Your task to perform on an android device: change text size in settings app Image 0: 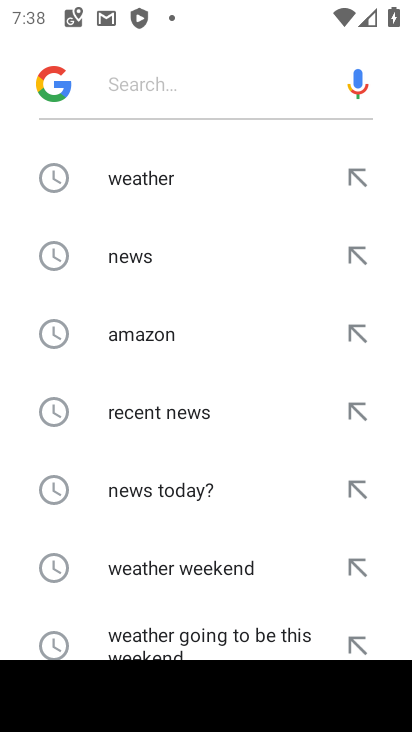
Step 0: press back button
Your task to perform on an android device: change text size in settings app Image 1: 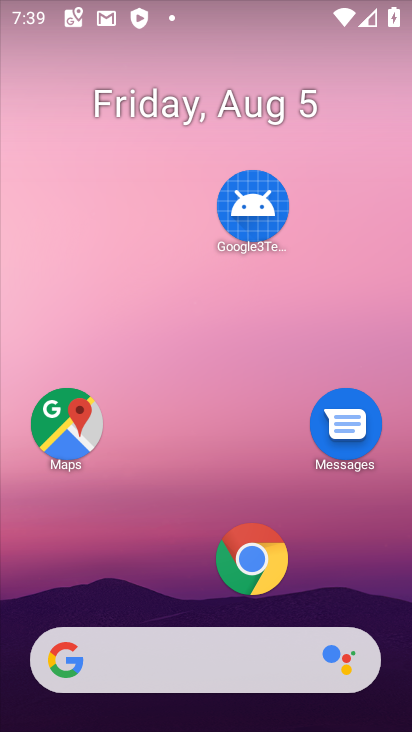
Step 1: drag from (209, 599) to (174, 15)
Your task to perform on an android device: change text size in settings app Image 2: 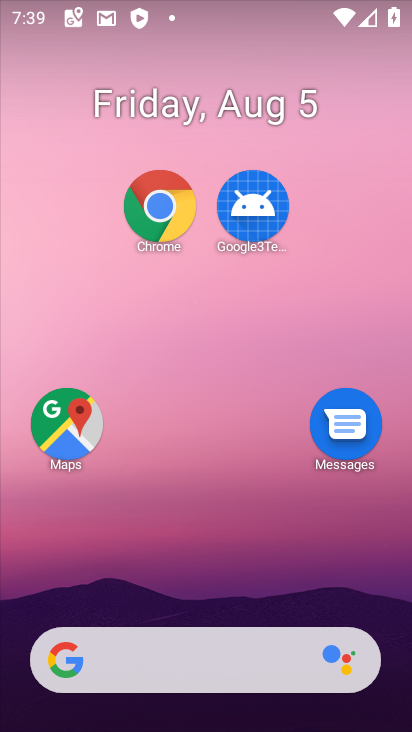
Step 2: drag from (266, 587) to (214, 148)
Your task to perform on an android device: change text size in settings app Image 3: 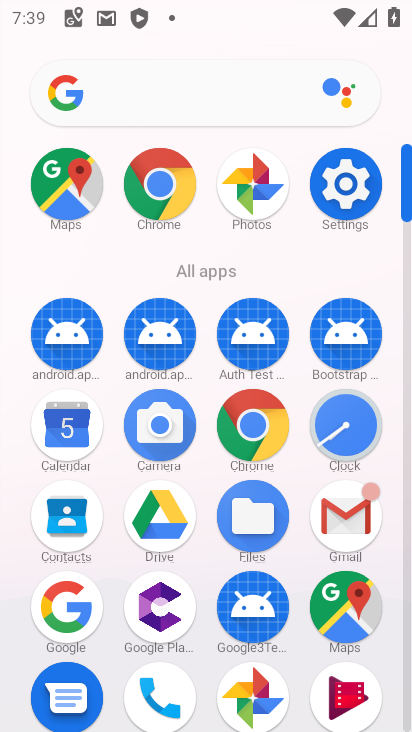
Step 3: click (350, 188)
Your task to perform on an android device: change text size in settings app Image 4: 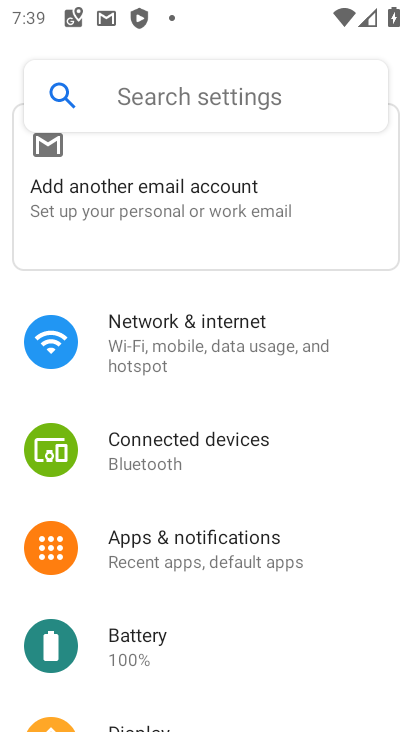
Step 4: click (111, 717)
Your task to perform on an android device: change text size in settings app Image 5: 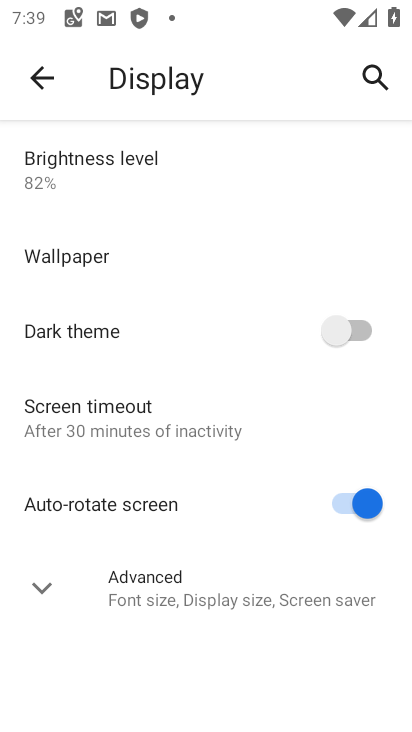
Step 5: click (127, 571)
Your task to perform on an android device: change text size in settings app Image 6: 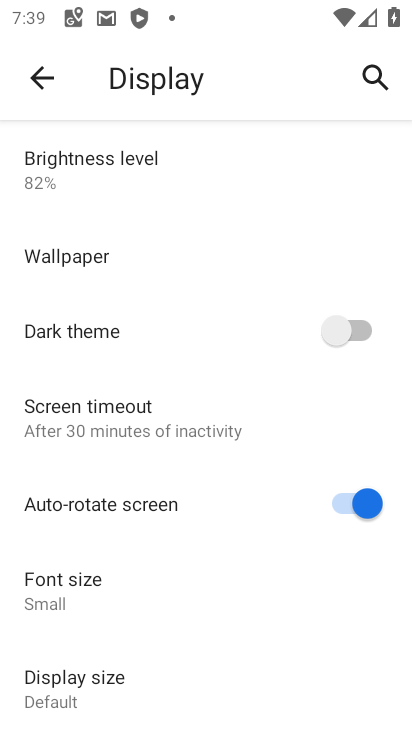
Step 6: click (101, 583)
Your task to perform on an android device: change text size in settings app Image 7: 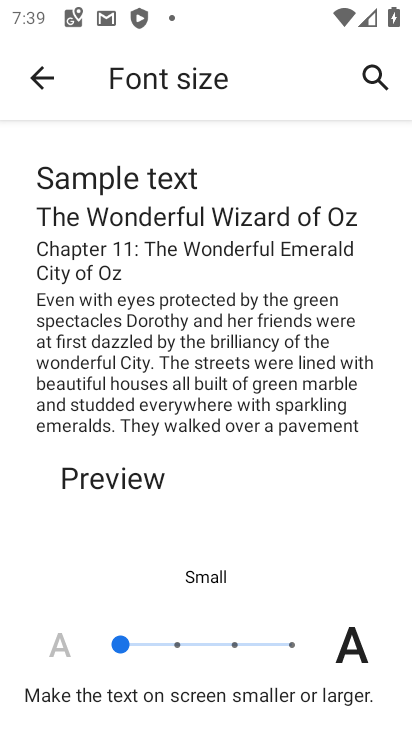
Step 7: click (179, 650)
Your task to perform on an android device: change text size in settings app Image 8: 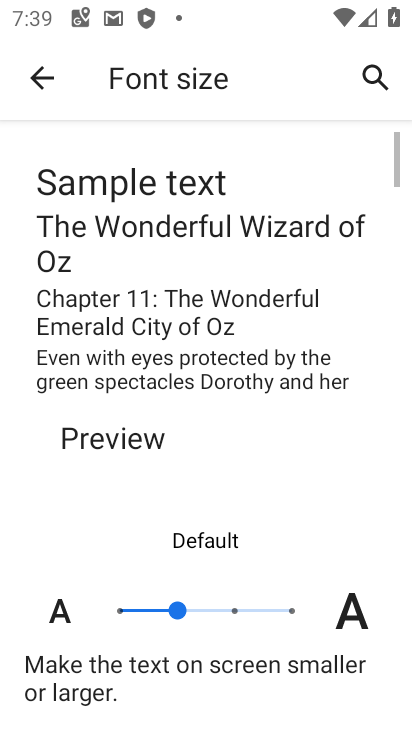
Step 8: task complete